Your task to perform on an android device: Search for pizza restaurants on Maps Image 0: 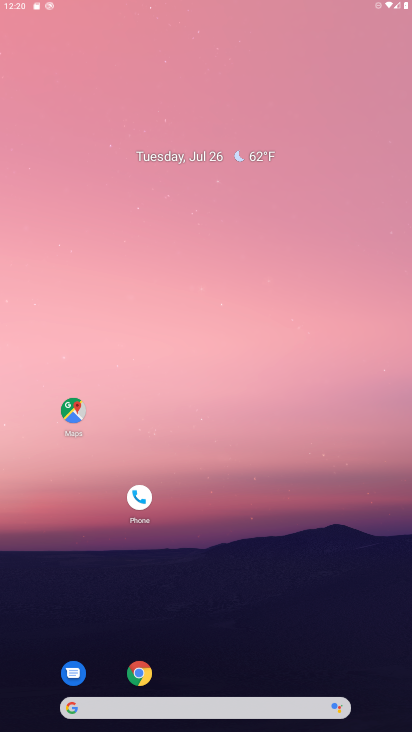
Step 0: press home button
Your task to perform on an android device: Search for pizza restaurants on Maps Image 1: 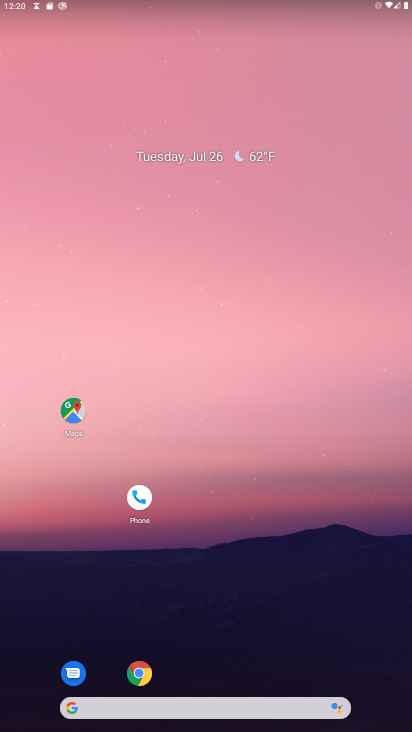
Step 1: drag from (211, 688) to (199, 266)
Your task to perform on an android device: Search for pizza restaurants on Maps Image 2: 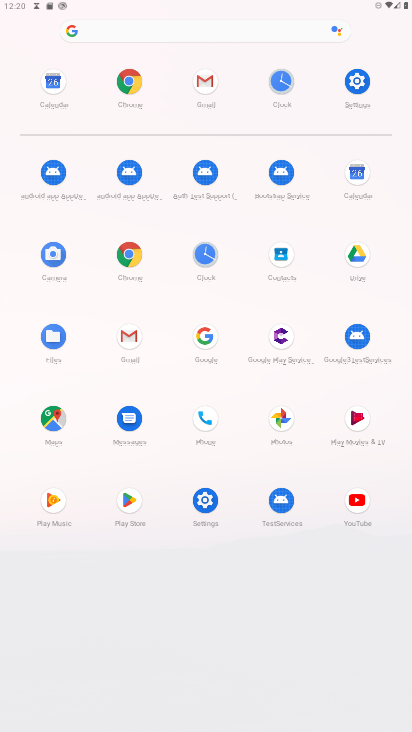
Step 2: click (56, 428)
Your task to perform on an android device: Search for pizza restaurants on Maps Image 3: 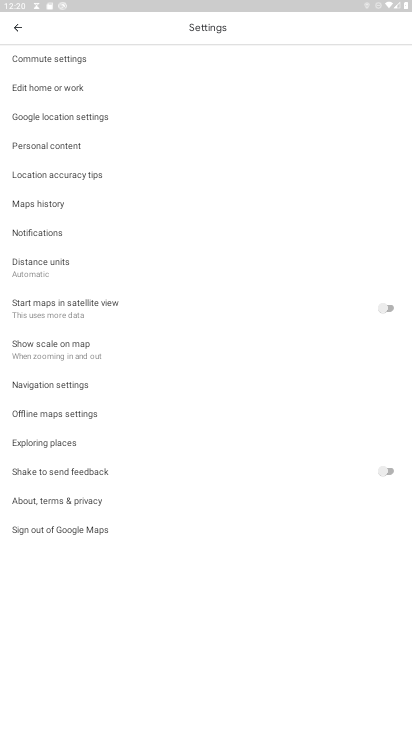
Step 3: click (20, 25)
Your task to perform on an android device: Search for pizza restaurants on Maps Image 4: 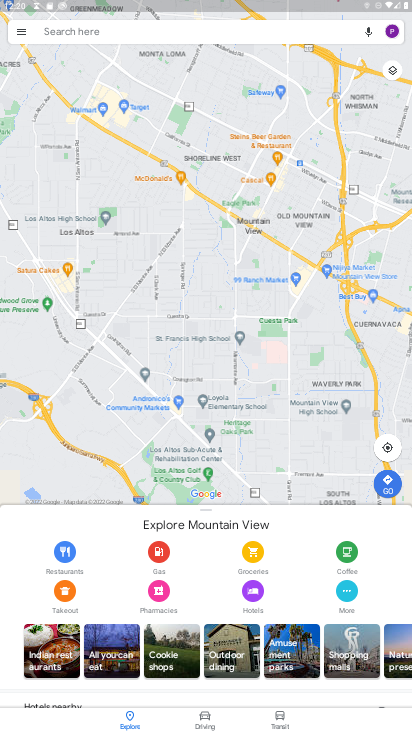
Step 4: click (120, 26)
Your task to perform on an android device: Search for pizza restaurants on Maps Image 5: 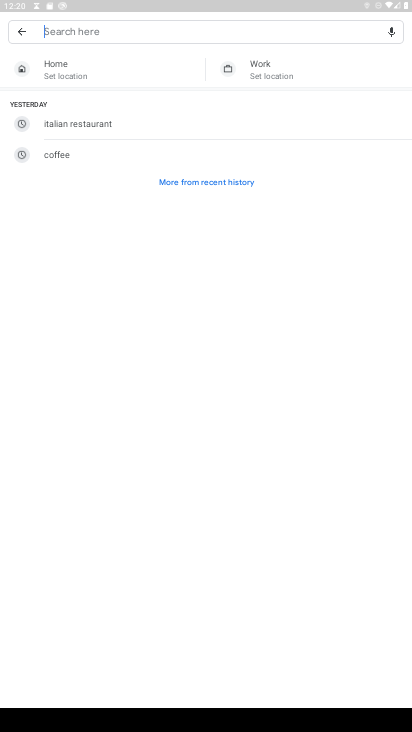
Step 5: type "pizza restaurants "
Your task to perform on an android device: Search for pizza restaurants on Maps Image 6: 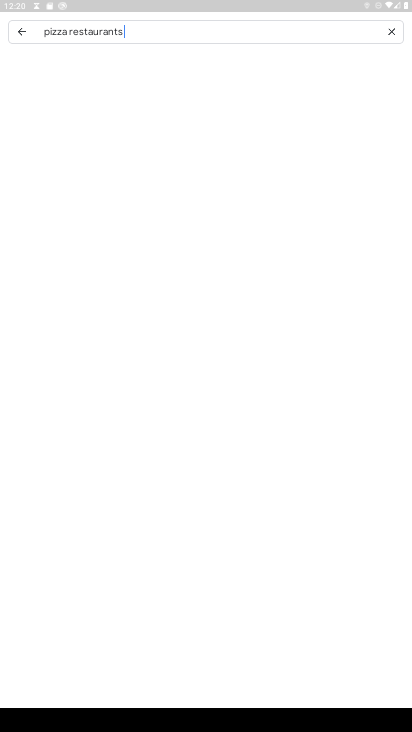
Step 6: press enter
Your task to perform on an android device: Search for pizza restaurants on Maps Image 7: 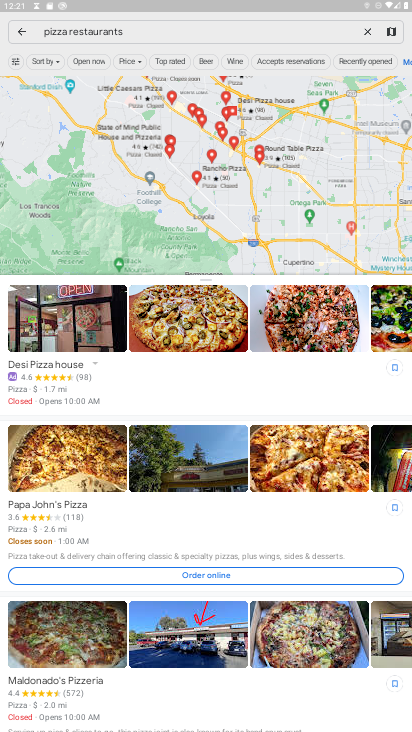
Step 7: task complete